Your task to perform on an android device: turn smart compose on in the gmail app Image 0: 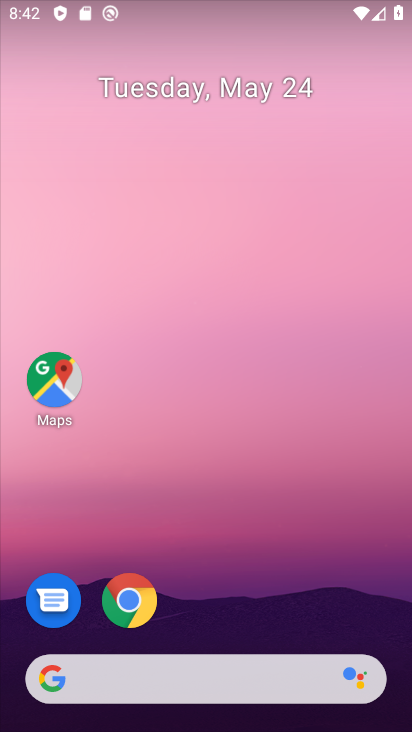
Step 0: drag from (257, 362) to (237, 67)
Your task to perform on an android device: turn smart compose on in the gmail app Image 1: 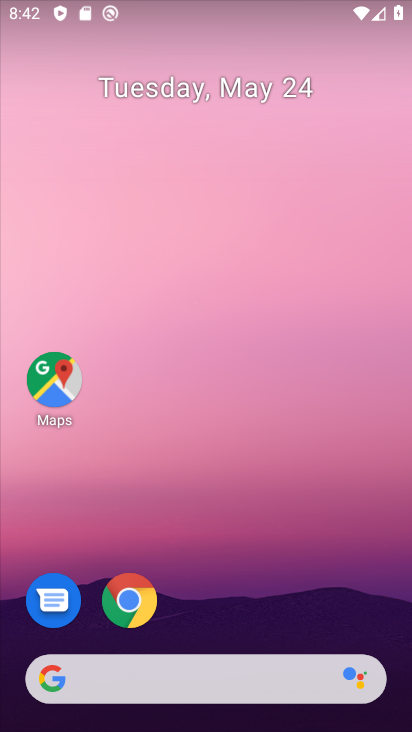
Step 1: drag from (198, 628) to (168, 142)
Your task to perform on an android device: turn smart compose on in the gmail app Image 2: 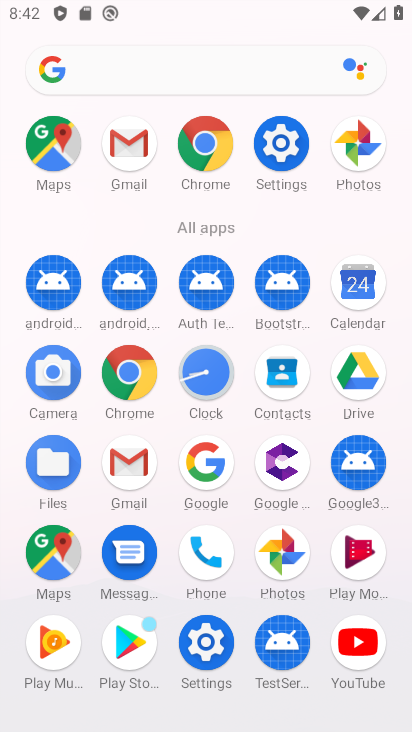
Step 2: click (142, 149)
Your task to perform on an android device: turn smart compose on in the gmail app Image 3: 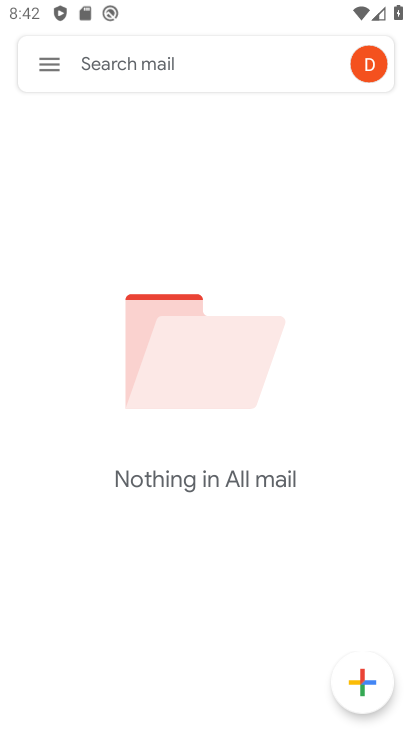
Step 3: click (48, 59)
Your task to perform on an android device: turn smart compose on in the gmail app Image 4: 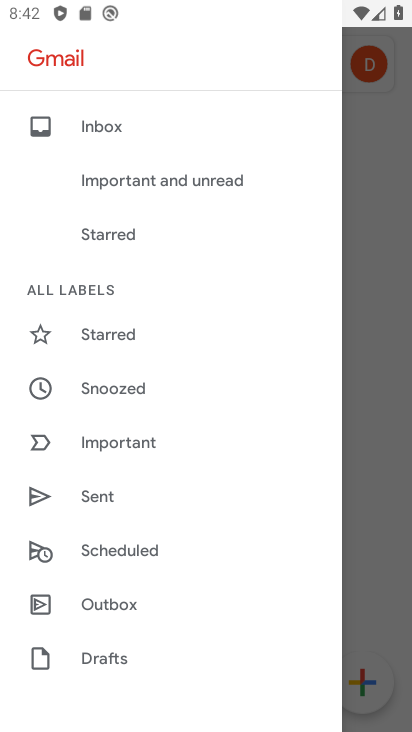
Step 4: drag from (90, 682) to (270, 187)
Your task to perform on an android device: turn smart compose on in the gmail app Image 5: 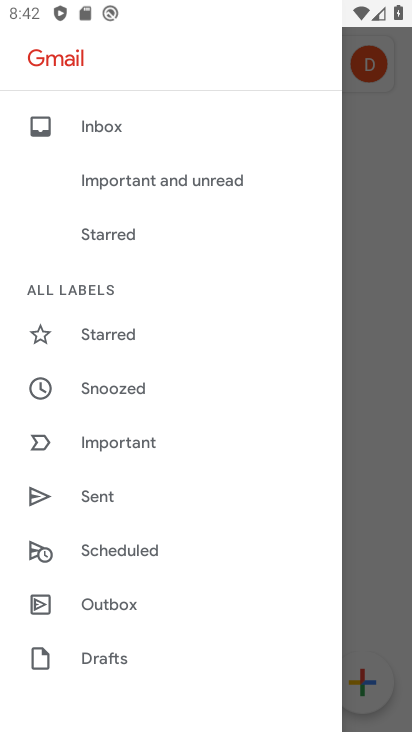
Step 5: drag from (188, 618) to (195, 66)
Your task to perform on an android device: turn smart compose on in the gmail app Image 6: 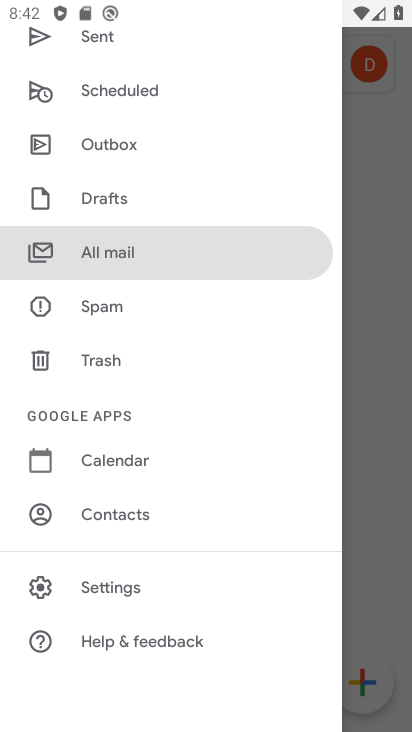
Step 6: click (141, 593)
Your task to perform on an android device: turn smart compose on in the gmail app Image 7: 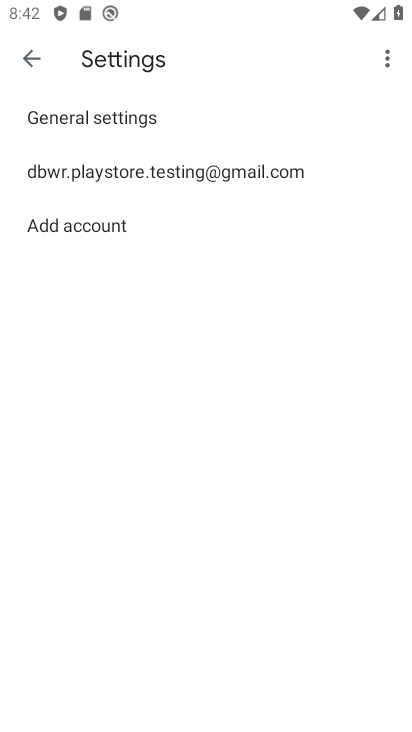
Step 7: click (225, 195)
Your task to perform on an android device: turn smart compose on in the gmail app Image 8: 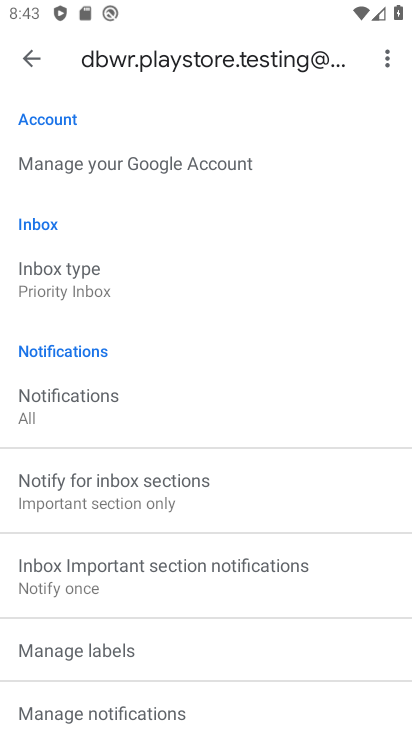
Step 8: task complete